Your task to perform on an android device: set default search engine in the chrome app Image 0: 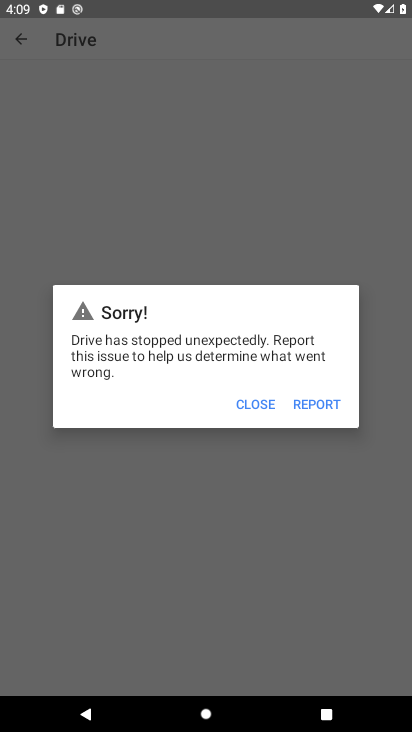
Step 0: press home button
Your task to perform on an android device: set default search engine in the chrome app Image 1: 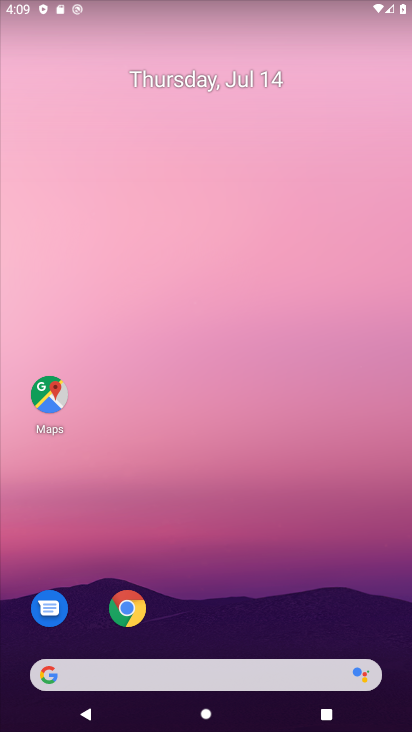
Step 1: click (141, 617)
Your task to perform on an android device: set default search engine in the chrome app Image 2: 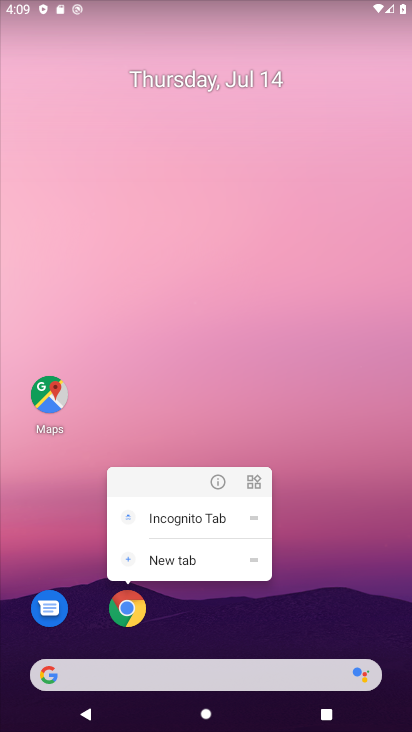
Step 2: click (142, 619)
Your task to perform on an android device: set default search engine in the chrome app Image 3: 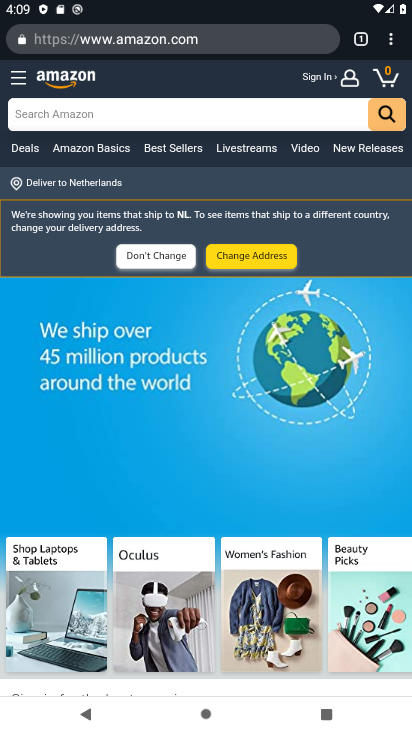
Step 3: click (384, 46)
Your task to perform on an android device: set default search engine in the chrome app Image 4: 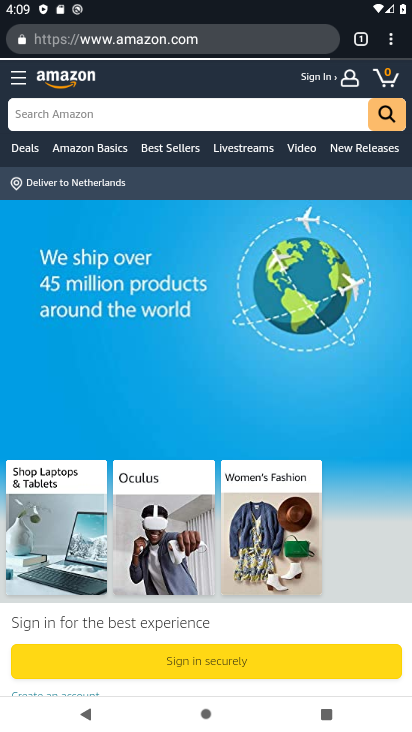
Step 4: click (395, 45)
Your task to perform on an android device: set default search engine in the chrome app Image 5: 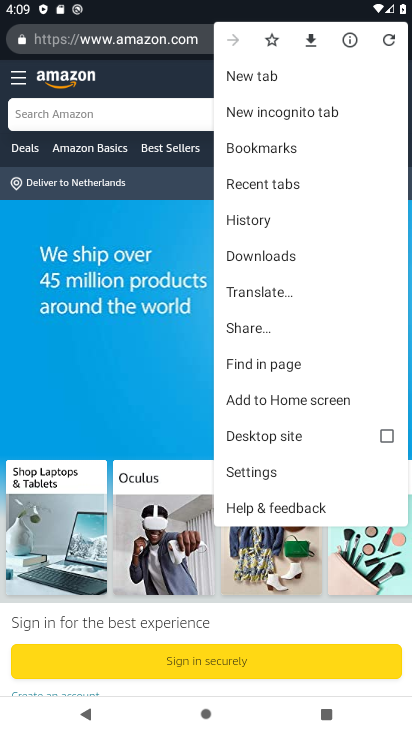
Step 5: click (288, 471)
Your task to perform on an android device: set default search engine in the chrome app Image 6: 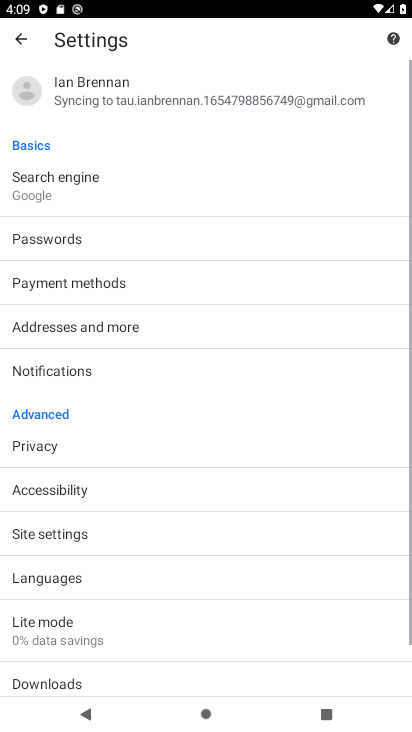
Step 6: click (107, 185)
Your task to perform on an android device: set default search engine in the chrome app Image 7: 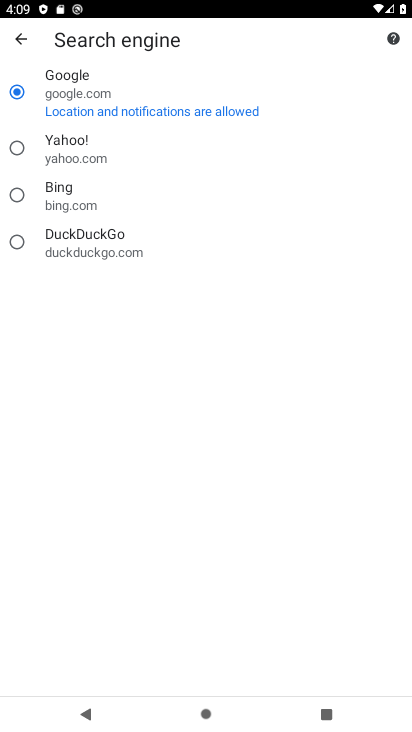
Step 7: task complete